Your task to perform on an android device: toggle show notifications on the lock screen Image 0: 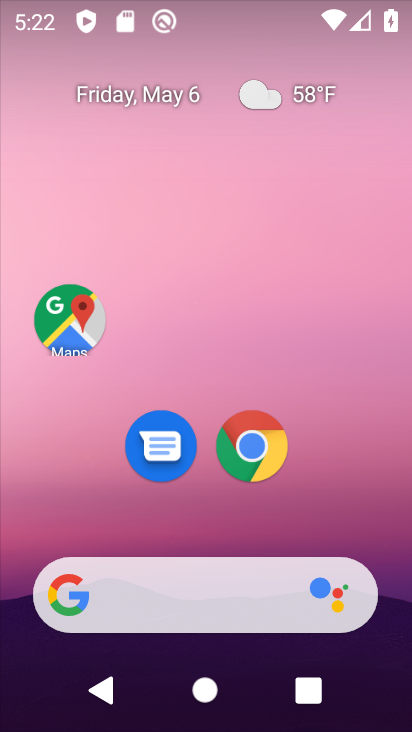
Step 0: drag from (311, 483) to (195, 83)
Your task to perform on an android device: toggle show notifications on the lock screen Image 1: 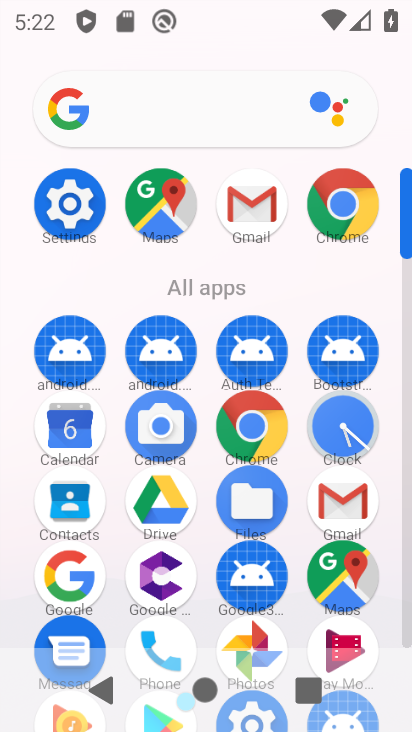
Step 1: click (63, 206)
Your task to perform on an android device: toggle show notifications on the lock screen Image 2: 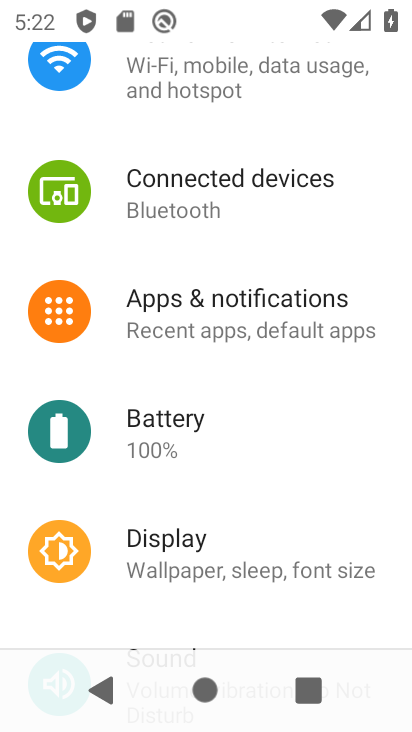
Step 2: click (233, 305)
Your task to perform on an android device: toggle show notifications on the lock screen Image 3: 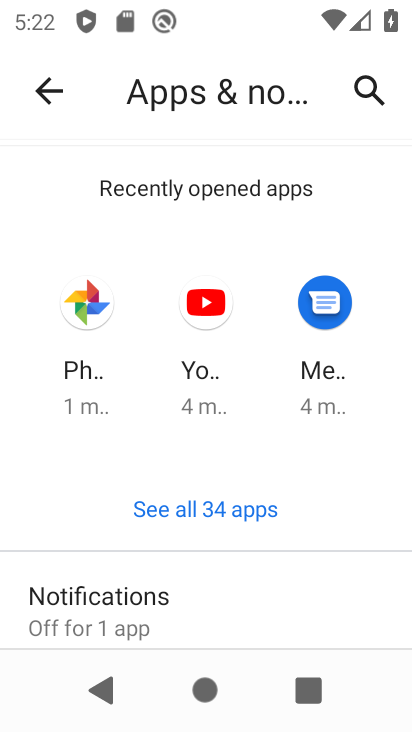
Step 3: drag from (233, 568) to (154, 170)
Your task to perform on an android device: toggle show notifications on the lock screen Image 4: 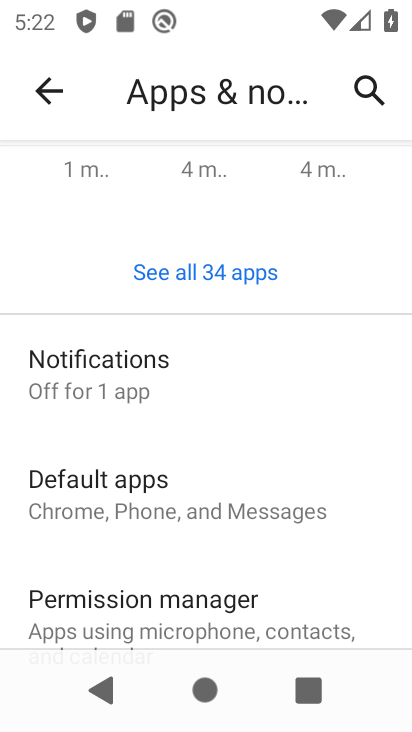
Step 4: drag from (173, 550) to (143, 310)
Your task to perform on an android device: toggle show notifications on the lock screen Image 5: 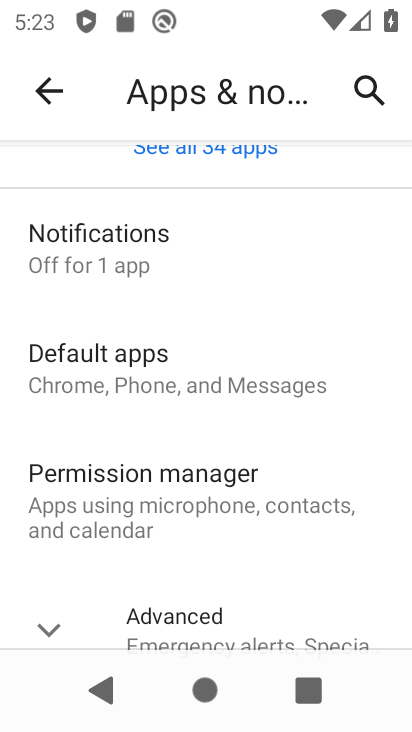
Step 5: click (67, 229)
Your task to perform on an android device: toggle show notifications on the lock screen Image 6: 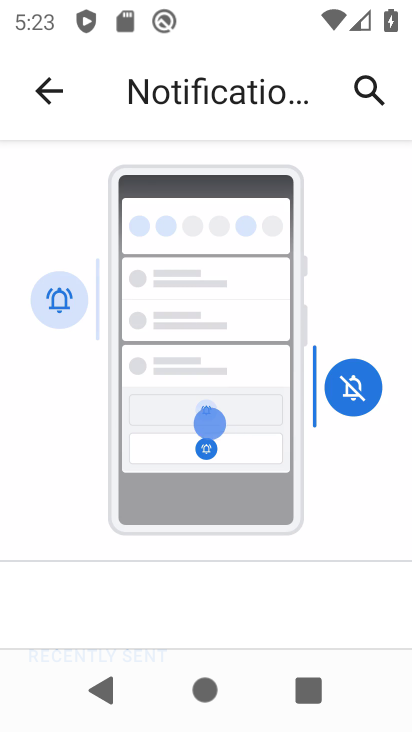
Step 6: drag from (343, 508) to (252, 97)
Your task to perform on an android device: toggle show notifications on the lock screen Image 7: 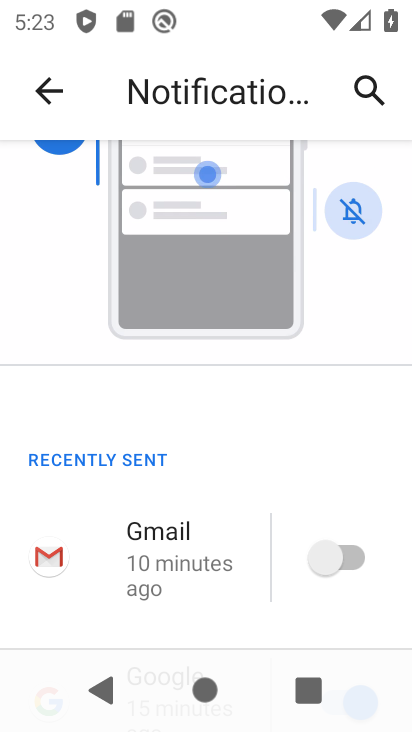
Step 7: drag from (201, 493) to (121, 179)
Your task to perform on an android device: toggle show notifications on the lock screen Image 8: 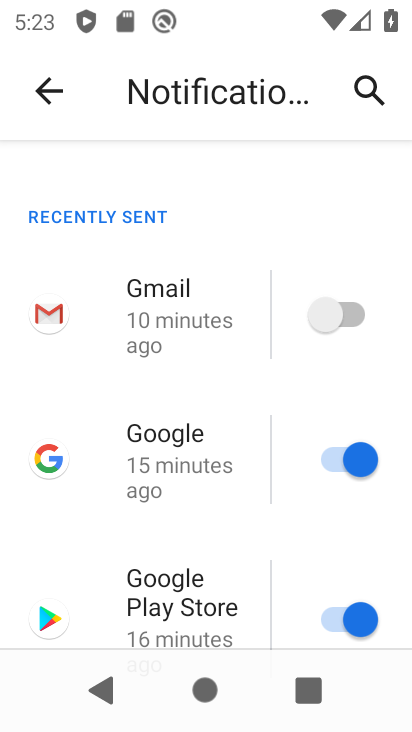
Step 8: drag from (208, 512) to (134, 150)
Your task to perform on an android device: toggle show notifications on the lock screen Image 9: 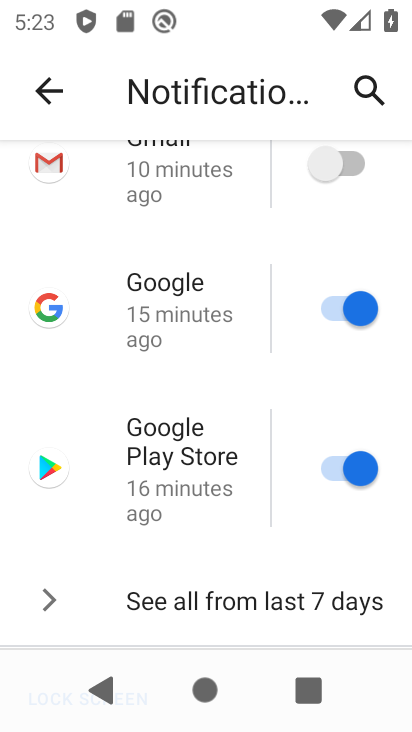
Step 9: drag from (173, 556) to (113, 202)
Your task to perform on an android device: toggle show notifications on the lock screen Image 10: 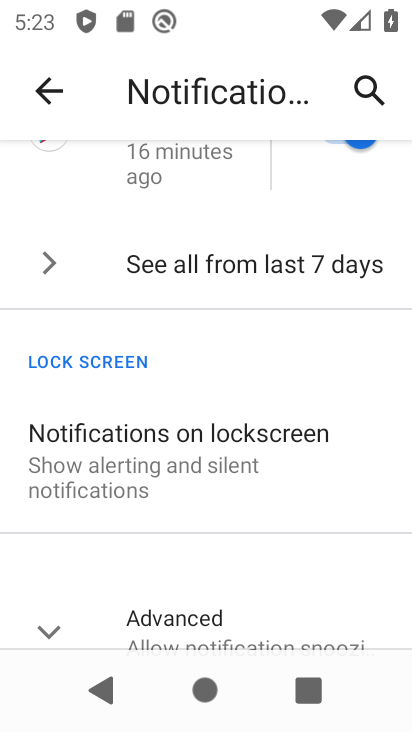
Step 10: click (141, 440)
Your task to perform on an android device: toggle show notifications on the lock screen Image 11: 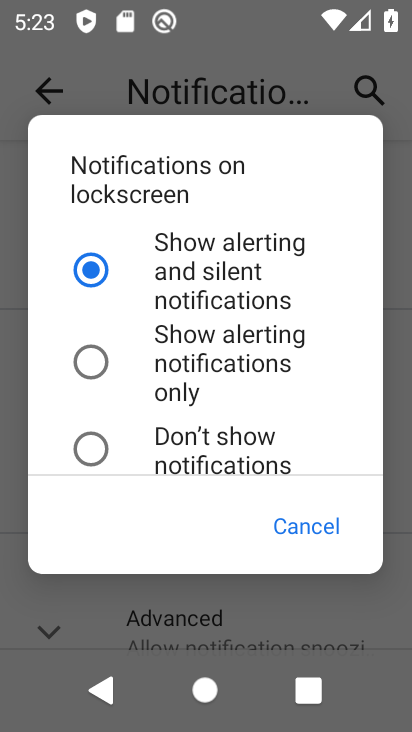
Step 11: click (93, 451)
Your task to perform on an android device: toggle show notifications on the lock screen Image 12: 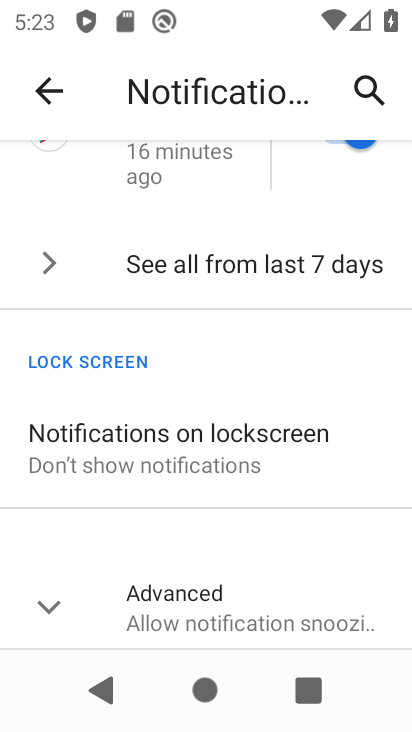
Step 12: task complete